Your task to perform on an android device: Go to CNN.com Image 0: 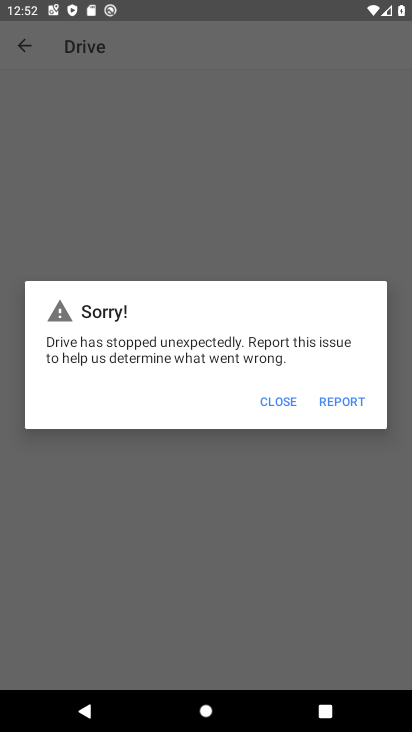
Step 0: drag from (175, 630) to (150, 238)
Your task to perform on an android device: Go to CNN.com Image 1: 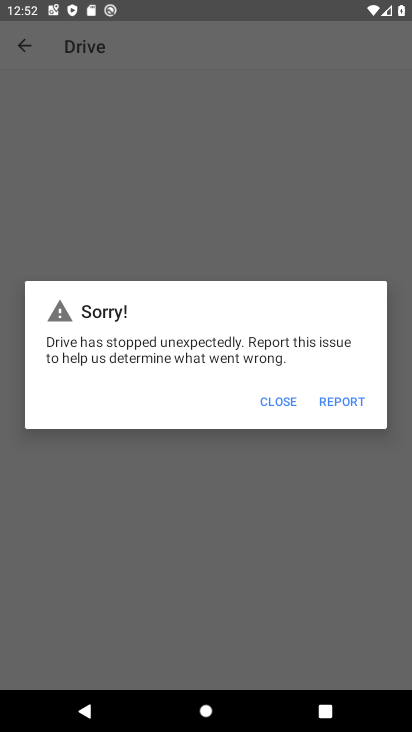
Step 1: press home button
Your task to perform on an android device: Go to CNN.com Image 2: 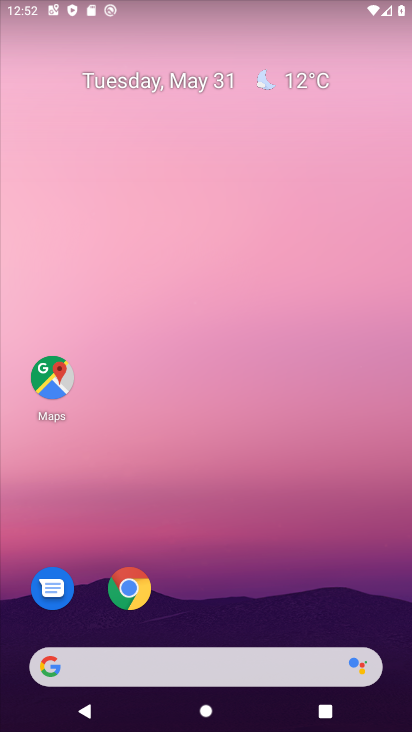
Step 2: click (130, 592)
Your task to perform on an android device: Go to CNN.com Image 3: 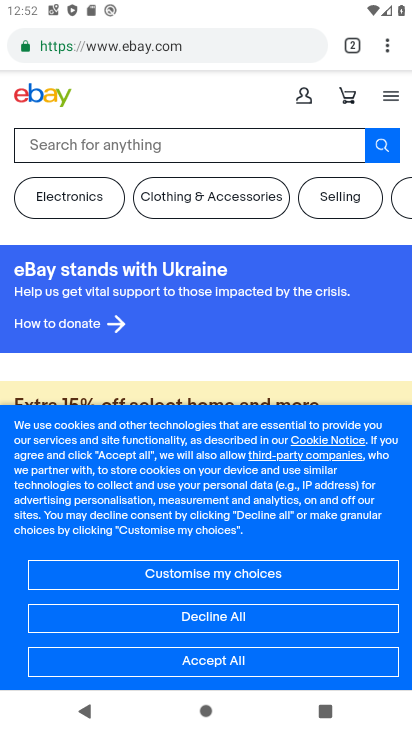
Step 3: press back button
Your task to perform on an android device: Go to CNN.com Image 4: 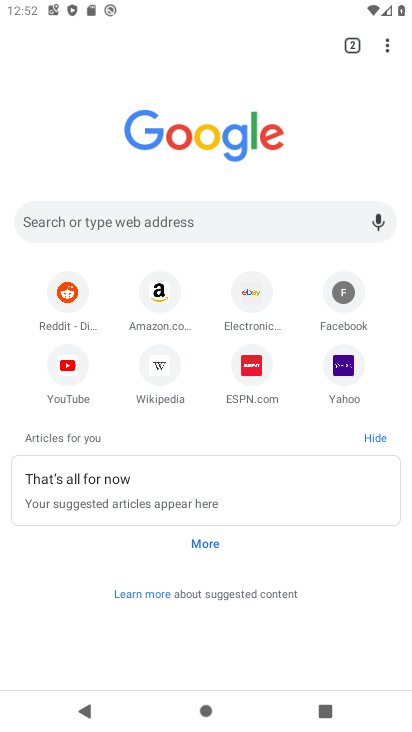
Step 4: click (125, 213)
Your task to perform on an android device: Go to CNN.com Image 5: 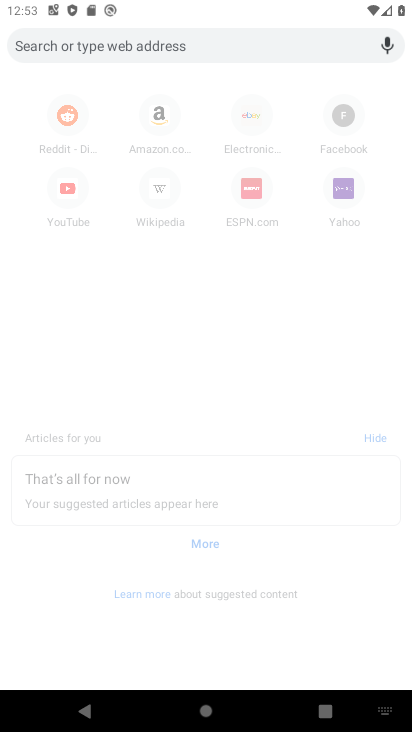
Step 5: type "www.cnn.com"
Your task to perform on an android device: Go to CNN.com Image 6: 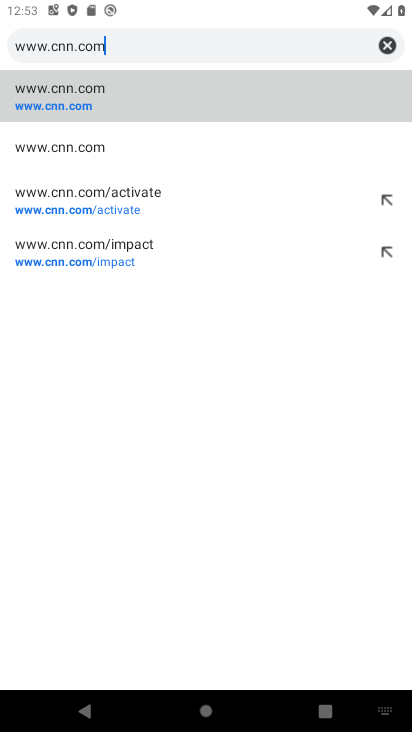
Step 6: click (36, 93)
Your task to perform on an android device: Go to CNN.com Image 7: 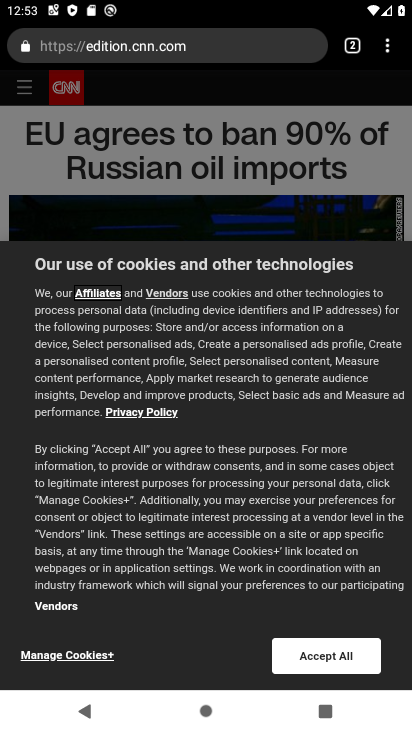
Step 7: task complete